Your task to perform on an android device: Open Amazon Image 0: 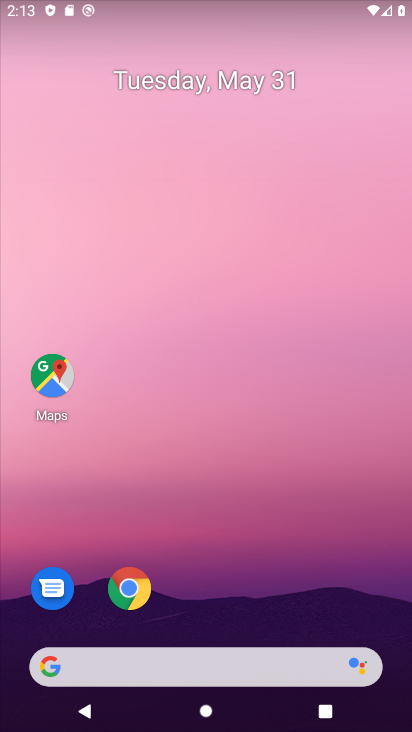
Step 0: click (146, 591)
Your task to perform on an android device: Open Amazon Image 1: 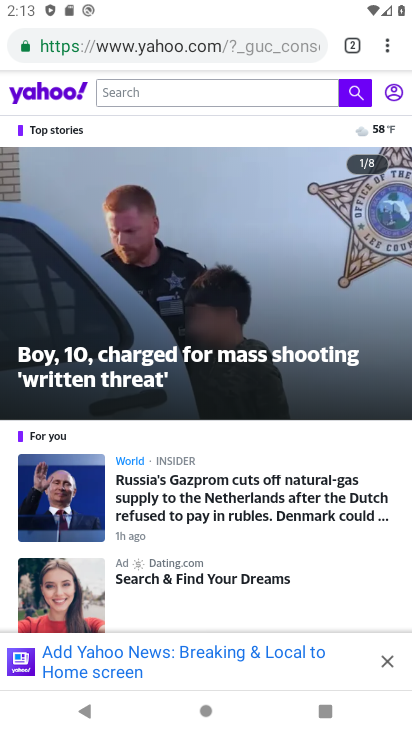
Step 1: click (354, 57)
Your task to perform on an android device: Open Amazon Image 2: 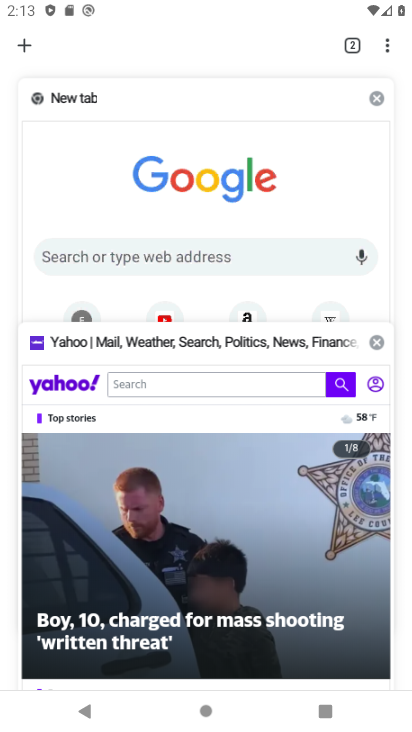
Step 2: click (375, 347)
Your task to perform on an android device: Open Amazon Image 3: 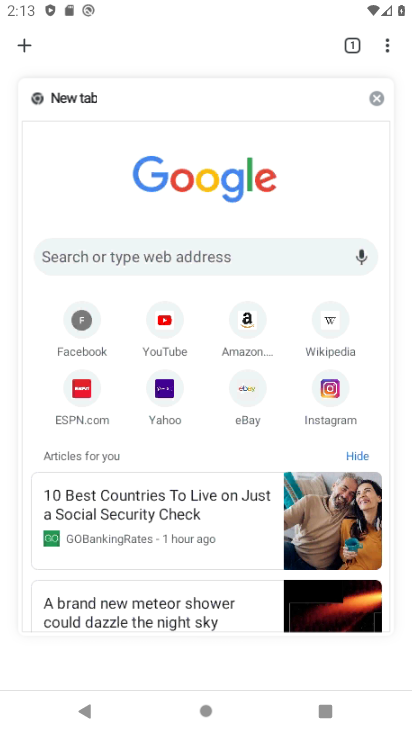
Step 3: click (291, 133)
Your task to perform on an android device: Open Amazon Image 4: 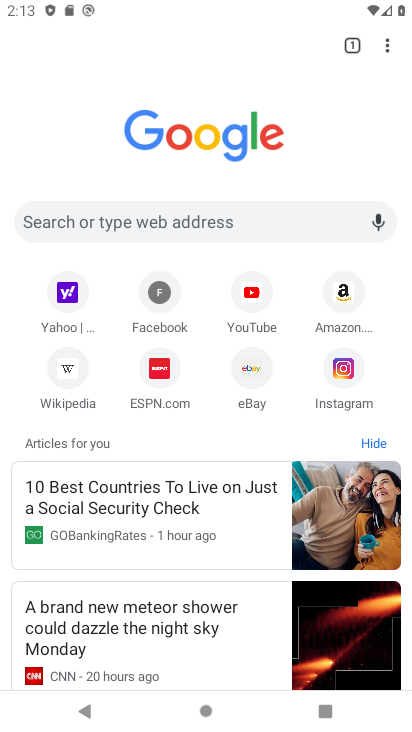
Step 4: click (342, 293)
Your task to perform on an android device: Open Amazon Image 5: 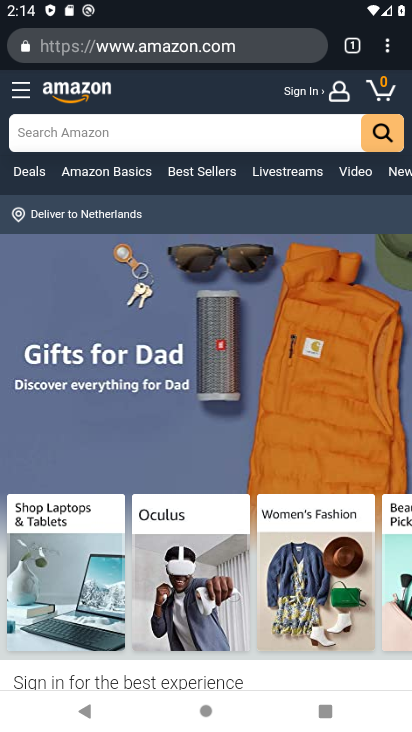
Step 5: task complete